Your task to perform on an android device: open app "Chime – Mobile Banking" Image 0: 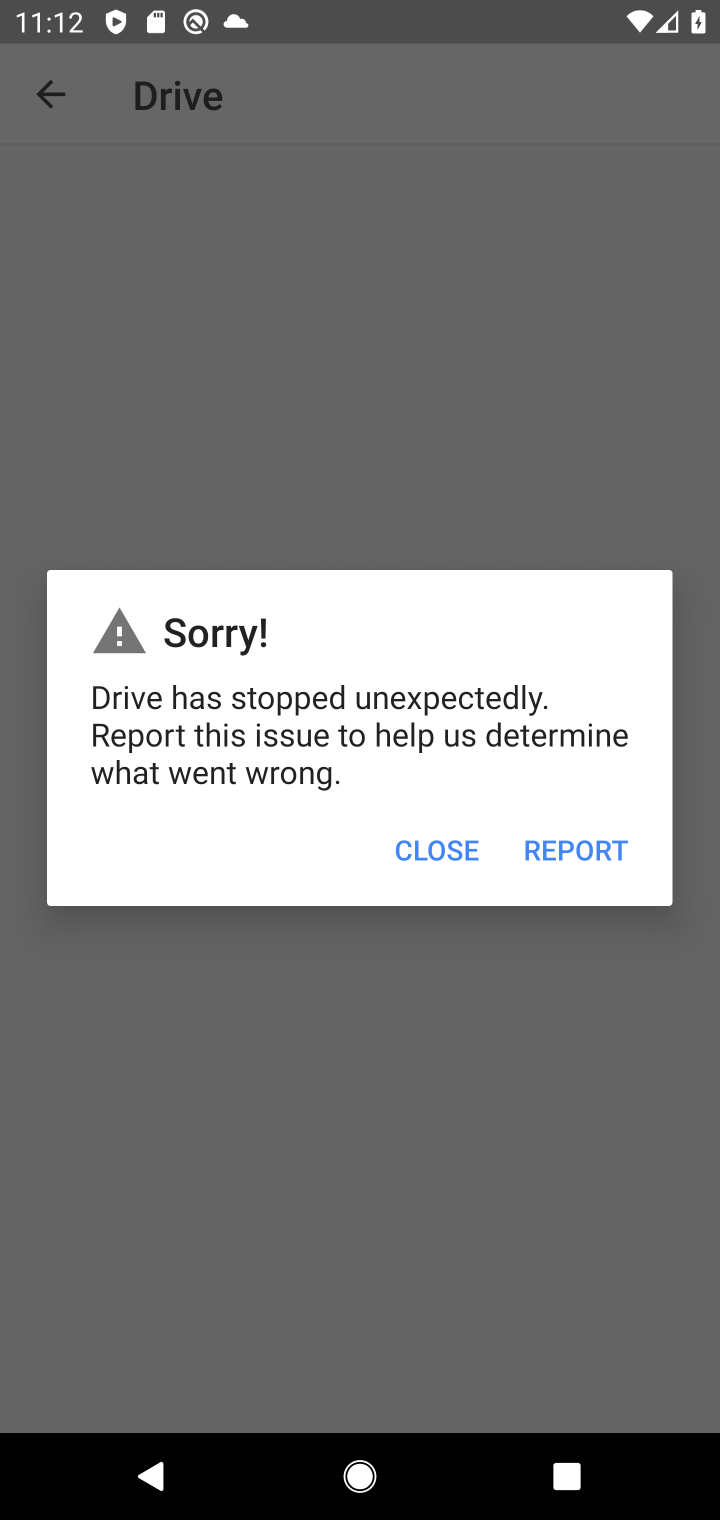
Step 0: press home button
Your task to perform on an android device: open app "Chime – Mobile Banking" Image 1: 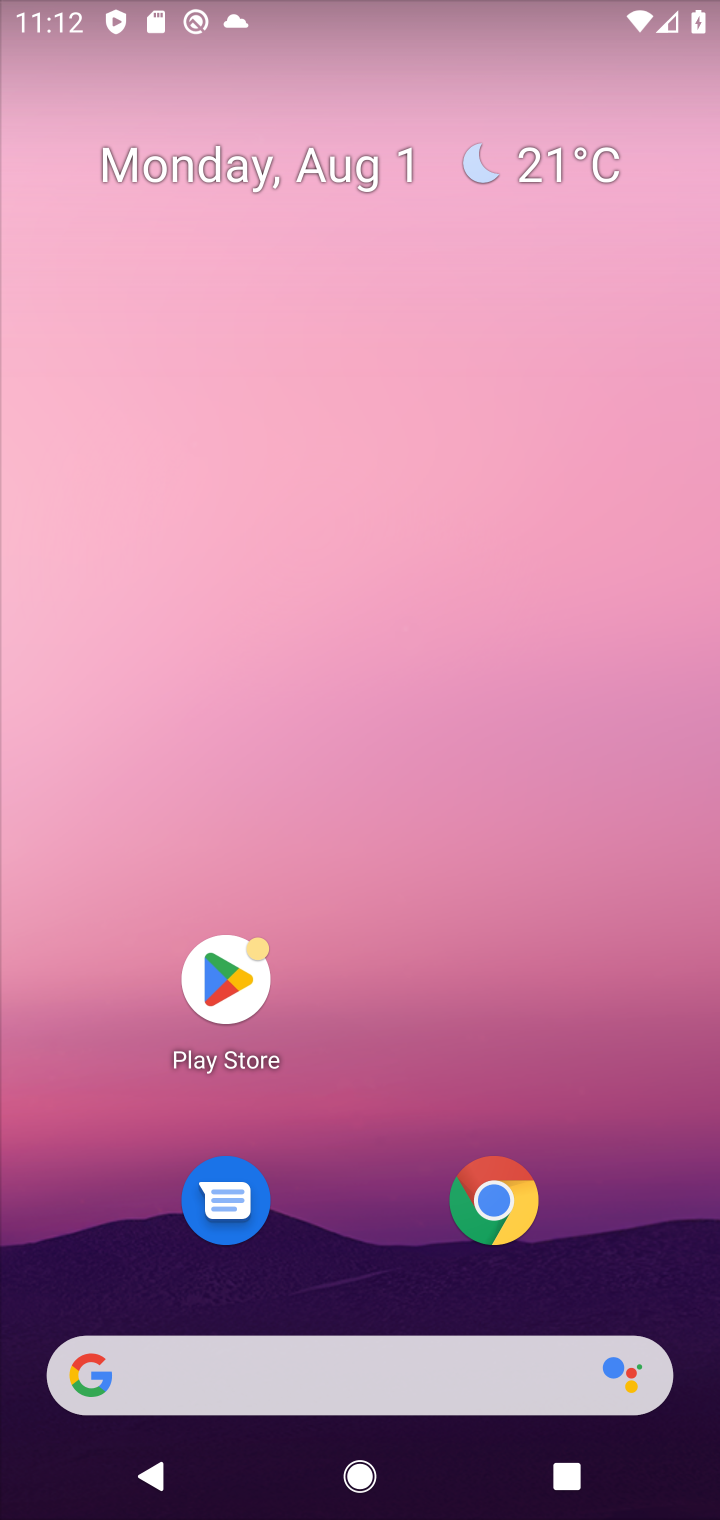
Step 1: click (233, 960)
Your task to perform on an android device: open app "Chime – Mobile Banking" Image 2: 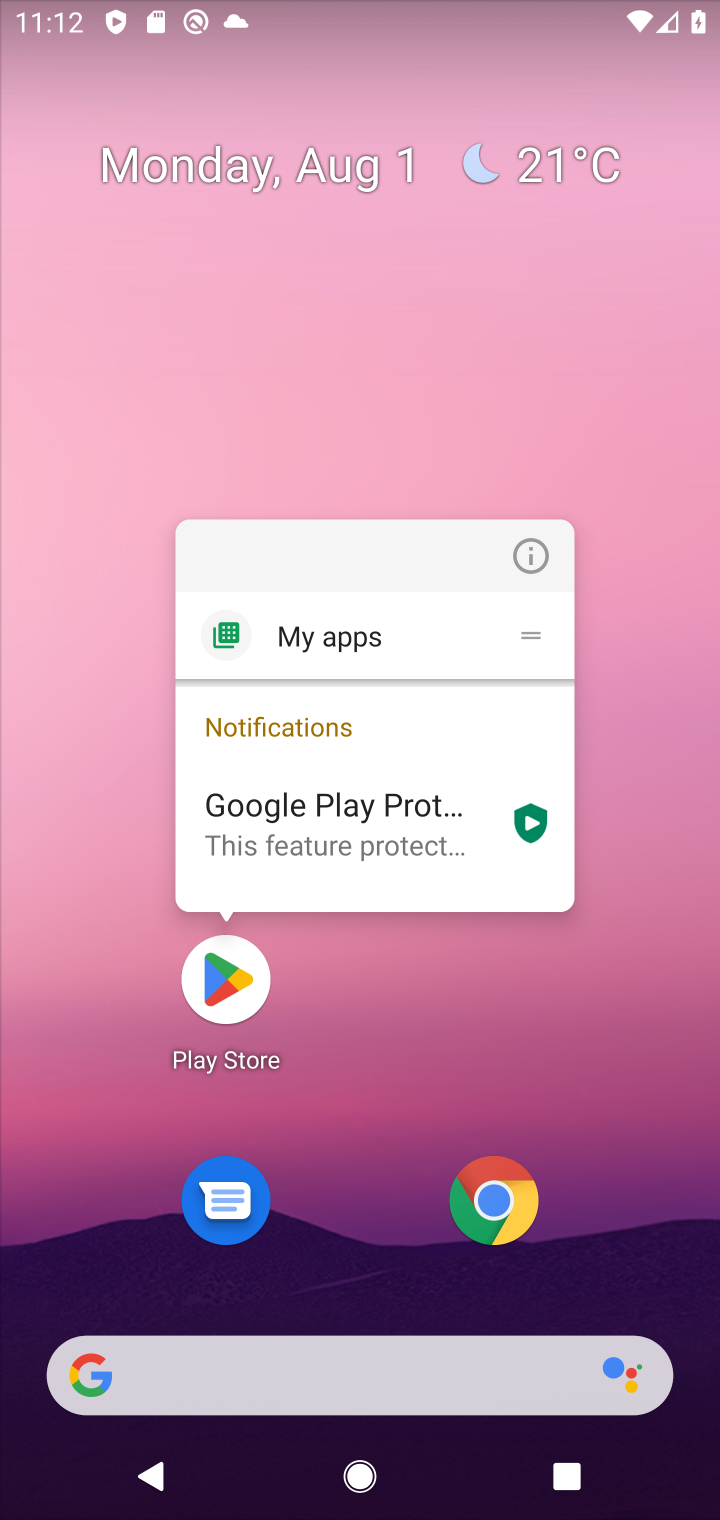
Step 2: click (225, 1010)
Your task to perform on an android device: open app "Chime – Mobile Banking" Image 3: 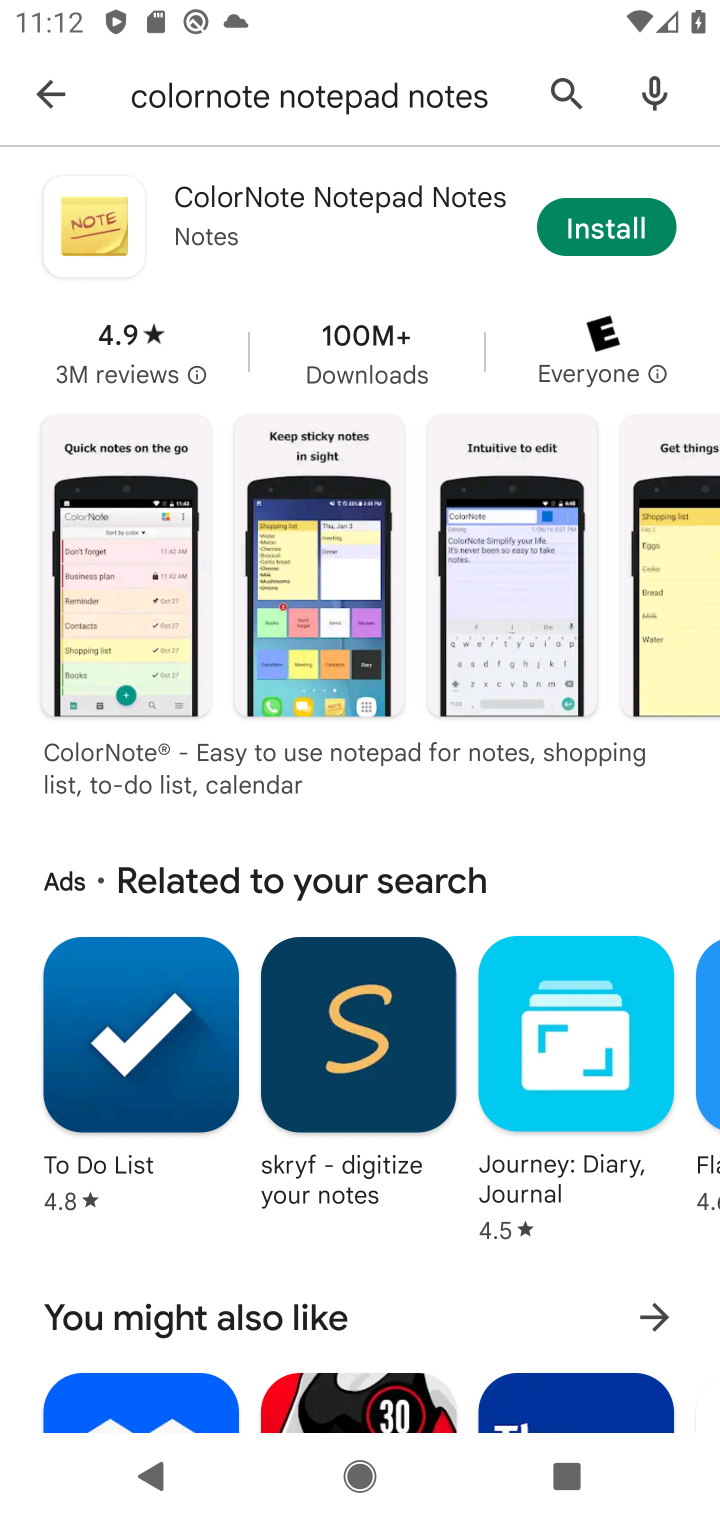
Step 3: click (571, 79)
Your task to perform on an android device: open app "Chime – Mobile Banking" Image 4: 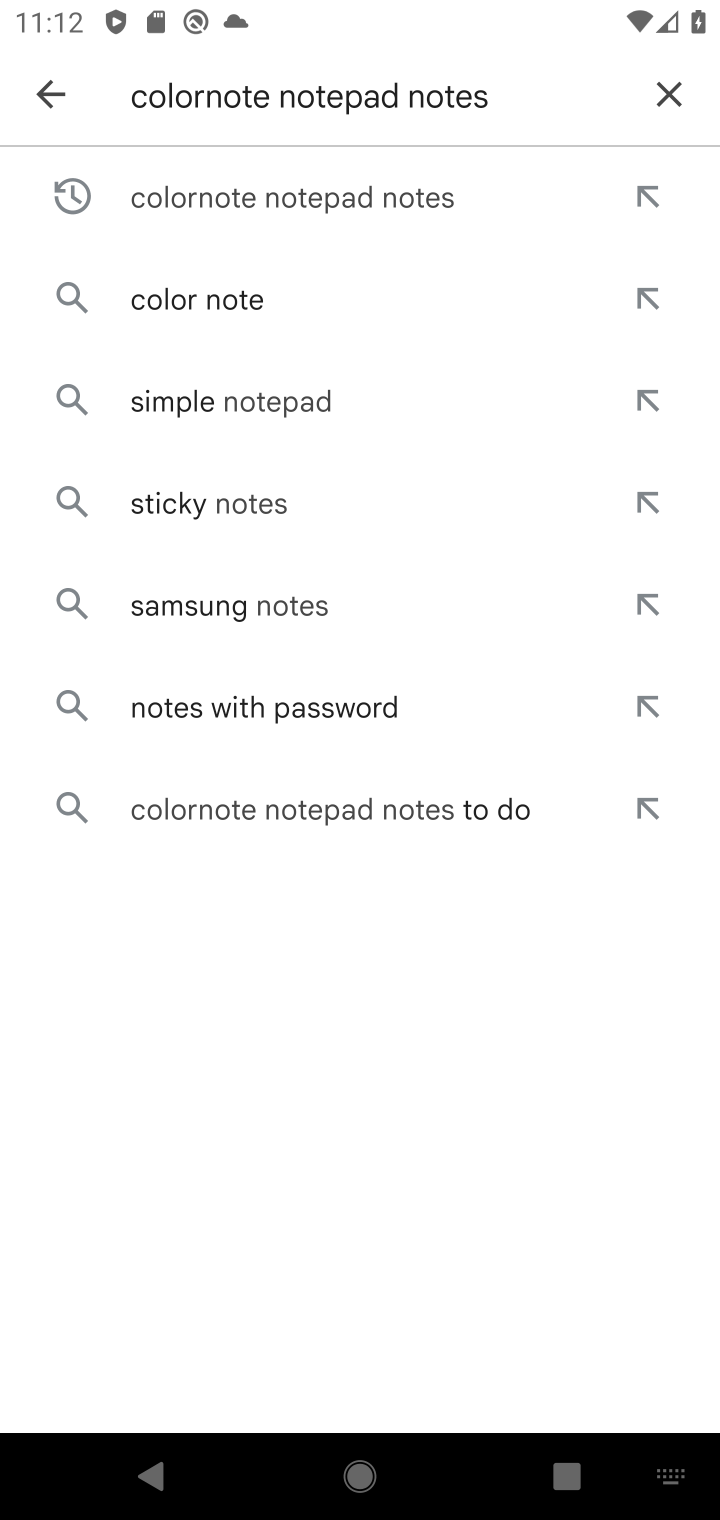
Step 4: click (667, 105)
Your task to perform on an android device: open app "Chime – Mobile Banking" Image 5: 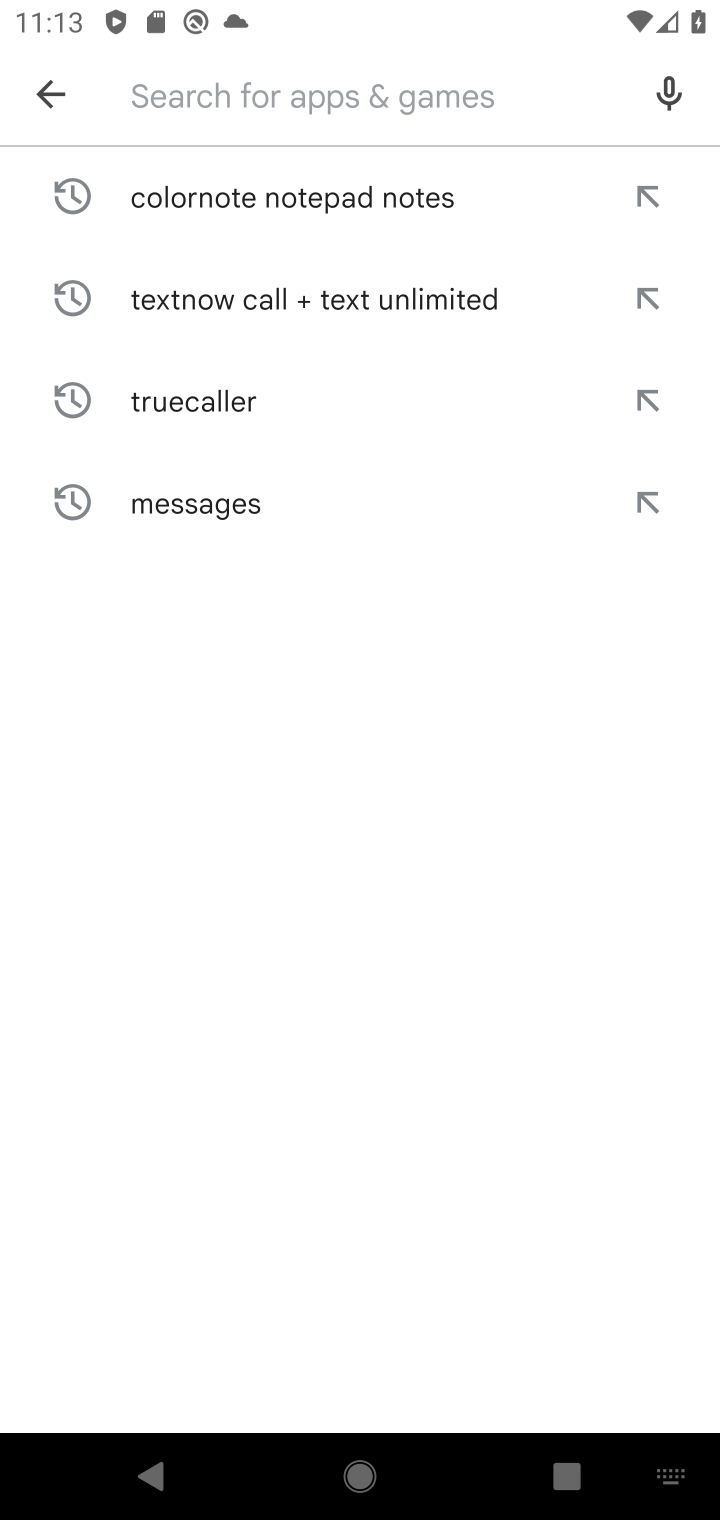
Step 5: type "Chime  Mobile Banking"
Your task to perform on an android device: open app "Chime – Mobile Banking" Image 6: 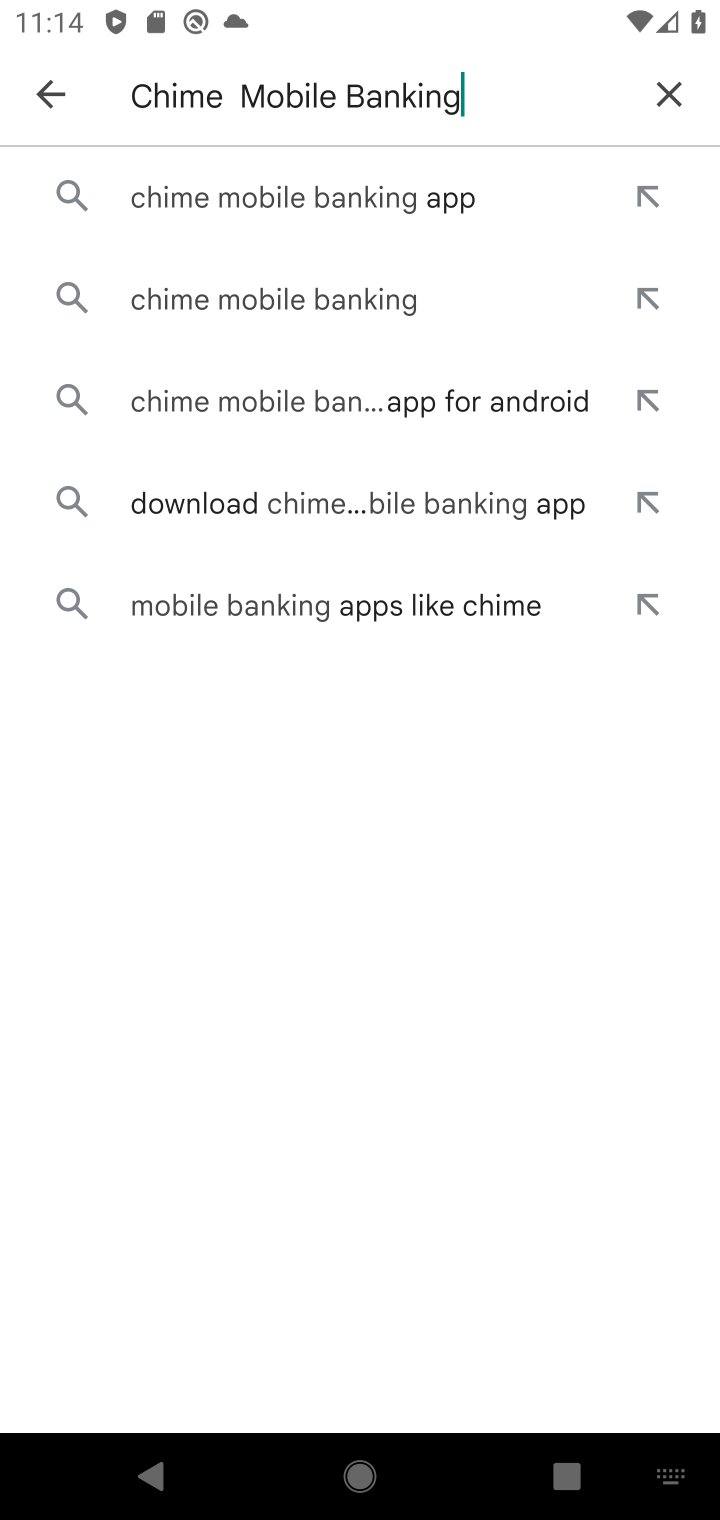
Step 6: click (286, 174)
Your task to perform on an android device: open app "Chime – Mobile Banking" Image 7: 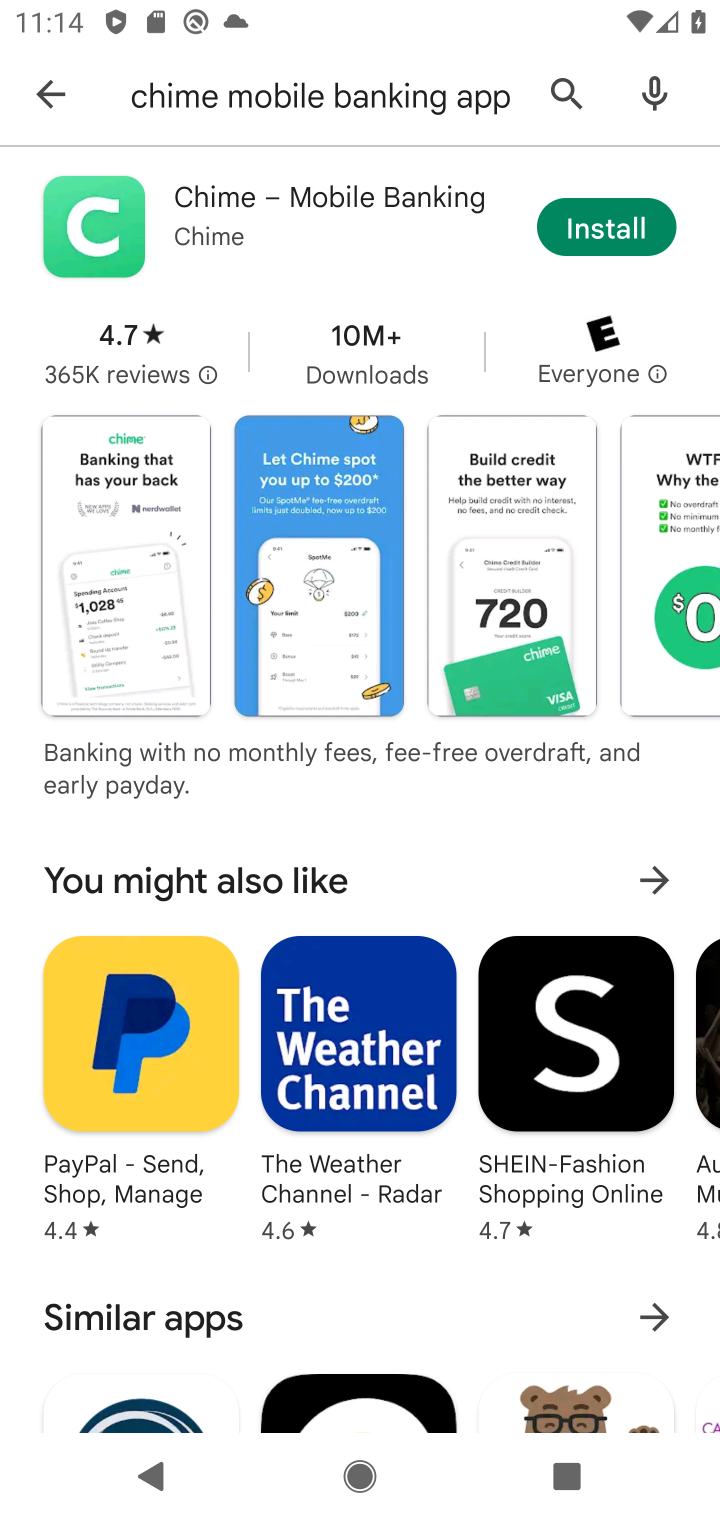
Step 7: task complete